Your task to perform on an android device: Open Reddit.com Image 0: 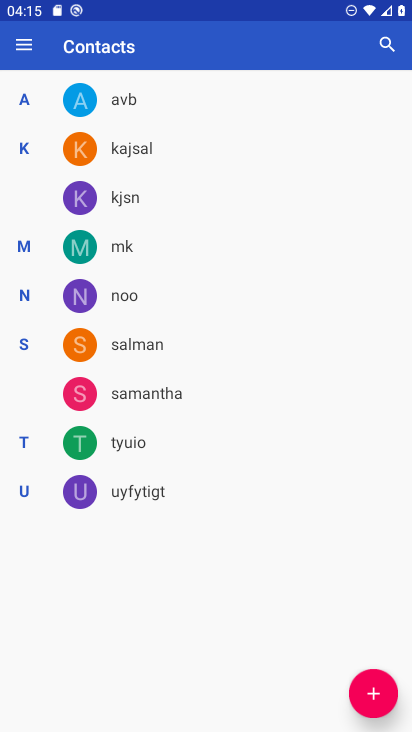
Step 0: press home button
Your task to perform on an android device: Open Reddit.com Image 1: 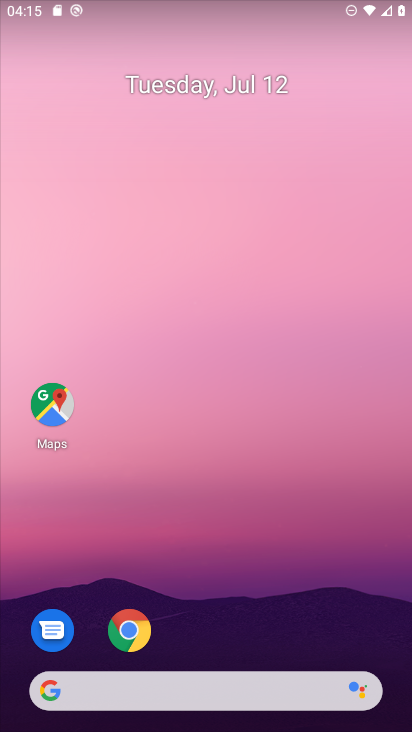
Step 1: click (131, 627)
Your task to perform on an android device: Open Reddit.com Image 2: 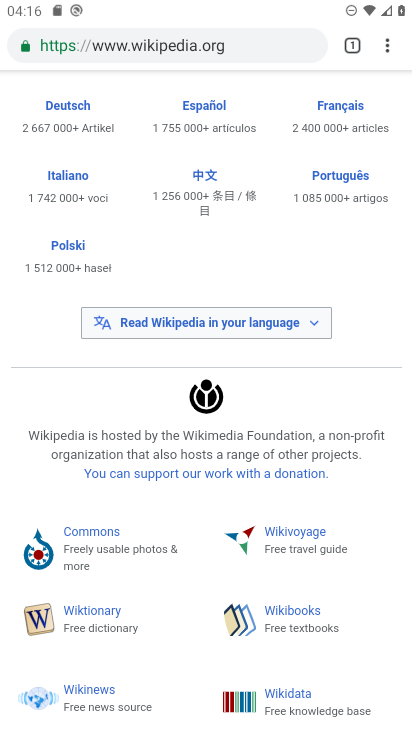
Step 2: click (265, 43)
Your task to perform on an android device: Open Reddit.com Image 3: 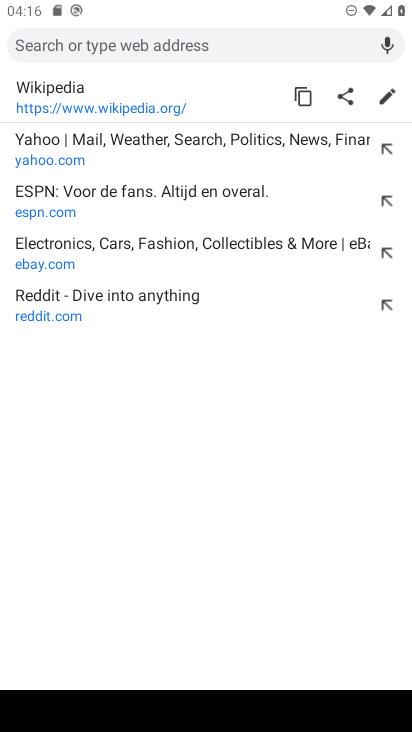
Step 3: type "reddit.com"
Your task to perform on an android device: Open Reddit.com Image 4: 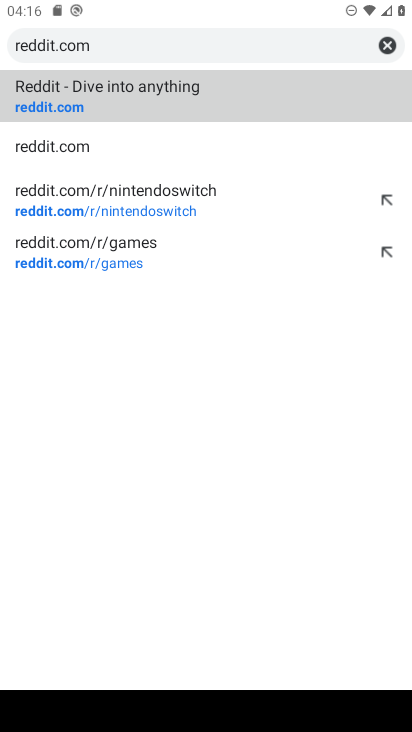
Step 4: click (102, 108)
Your task to perform on an android device: Open Reddit.com Image 5: 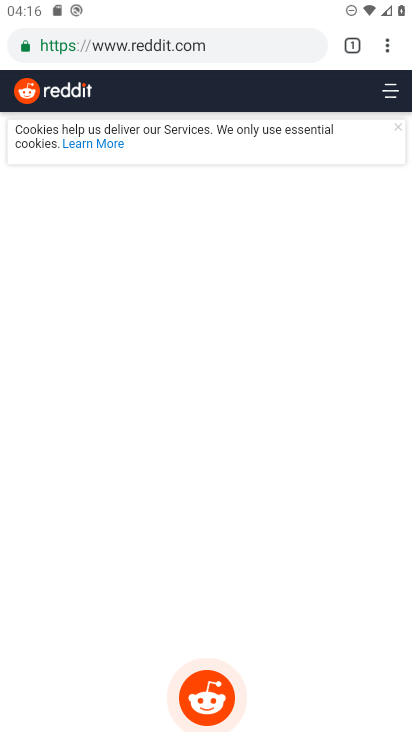
Step 5: task complete